Your task to perform on an android device: turn on location history Image 0: 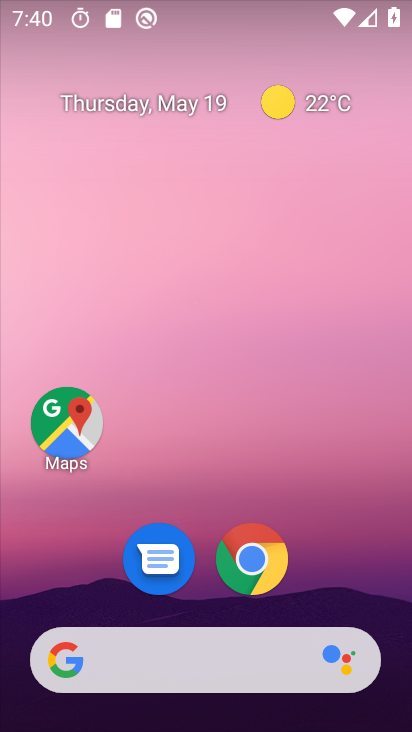
Step 0: drag from (291, 566) to (357, 31)
Your task to perform on an android device: turn on location history Image 1: 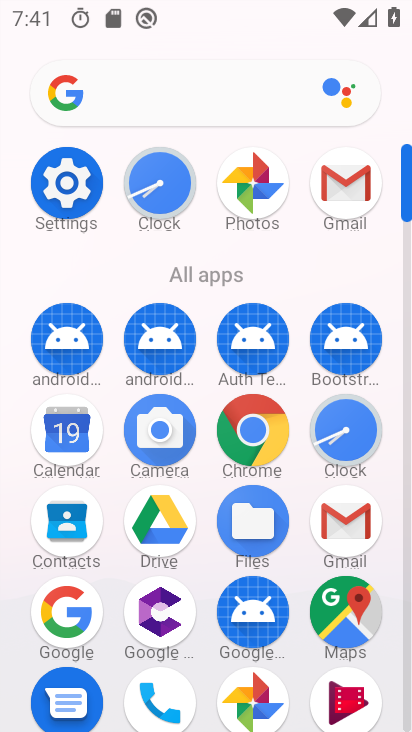
Step 1: click (65, 187)
Your task to perform on an android device: turn on location history Image 2: 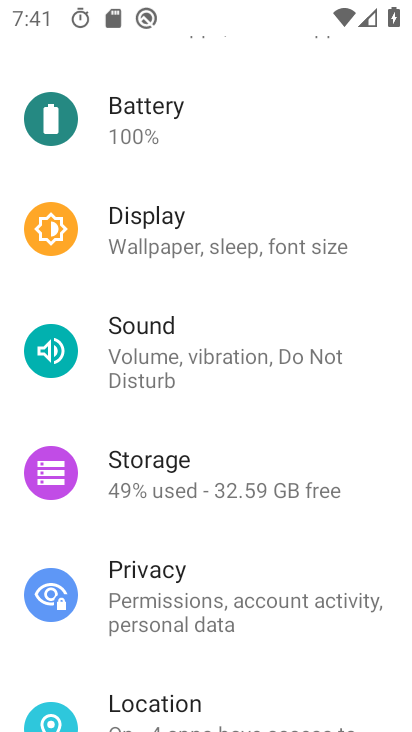
Step 2: click (159, 708)
Your task to perform on an android device: turn on location history Image 3: 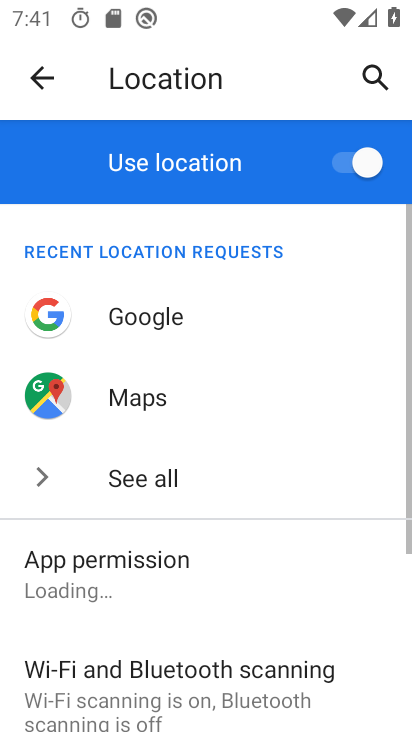
Step 3: drag from (158, 654) to (192, 275)
Your task to perform on an android device: turn on location history Image 4: 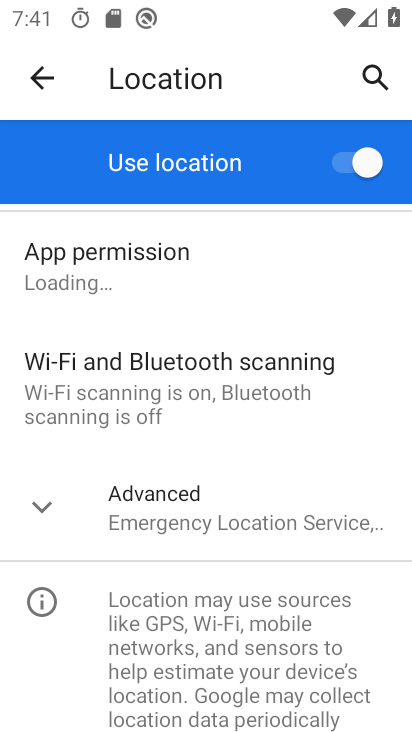
Step 4: click (185, 527)
Your task to perform on an android device: turn on location history Image 5: 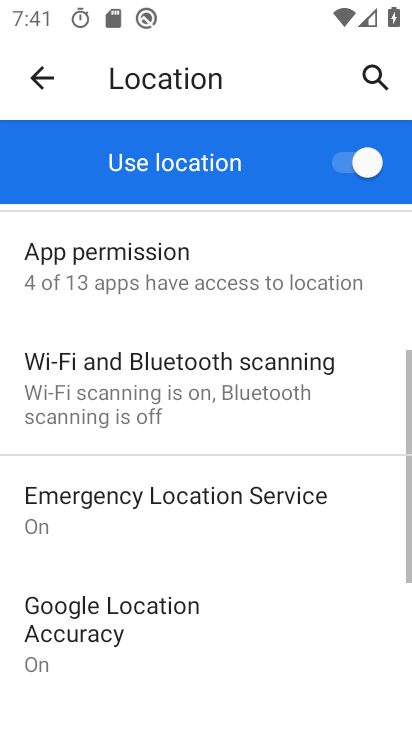
Step 5: drag from (210, 613) to (269, 301)
Your task to perform on an android device: turn on location history Image 6: 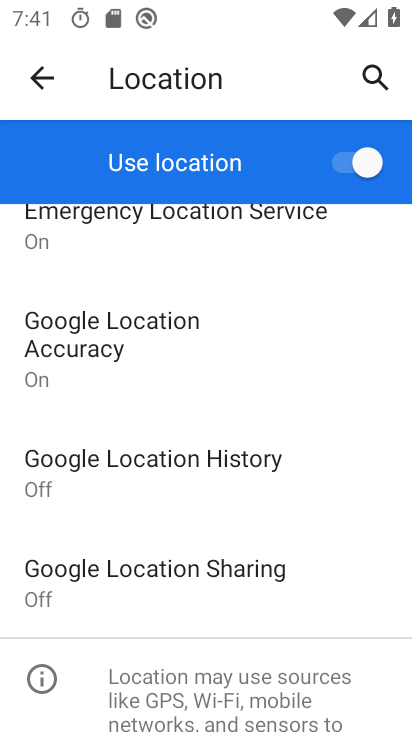
Step 6: click (148, 463)
Your task to perform on an android device: turn on location history Image 7: 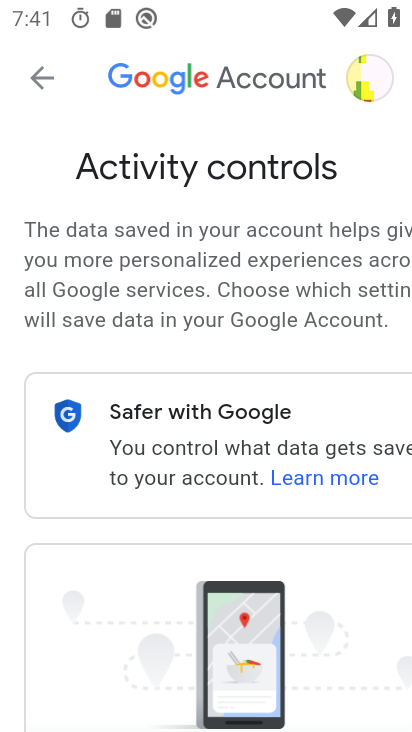
Step 7: task complete